Your task to perform on an android device: change notifications settings Image 0: 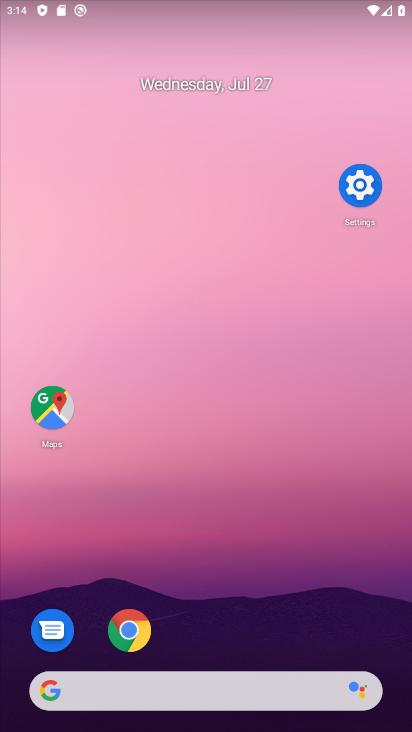
Step 0: press home button
Your task to perform on an android device: change notifications settings Image 1: 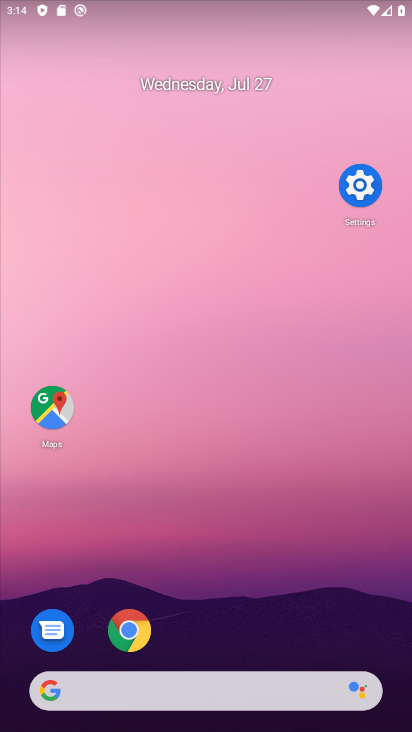
Step 1: drag from (229, 573) to (245, 94)
Your task to perform on an android device: change notifications settings Image 2: 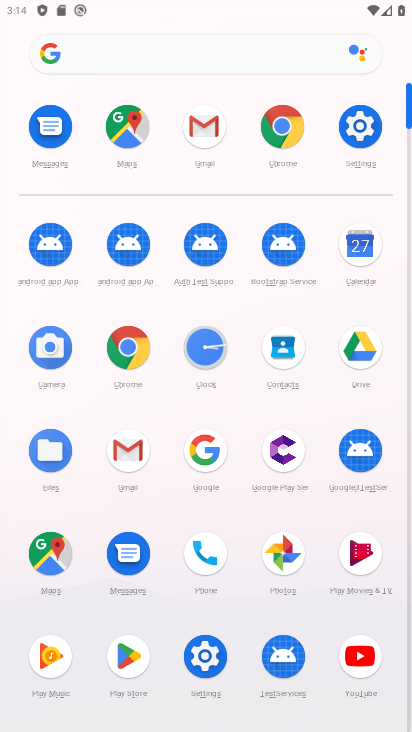
Step 2: click (356, 133)
Your task to perform on an android device: change notifications settings Image 3: 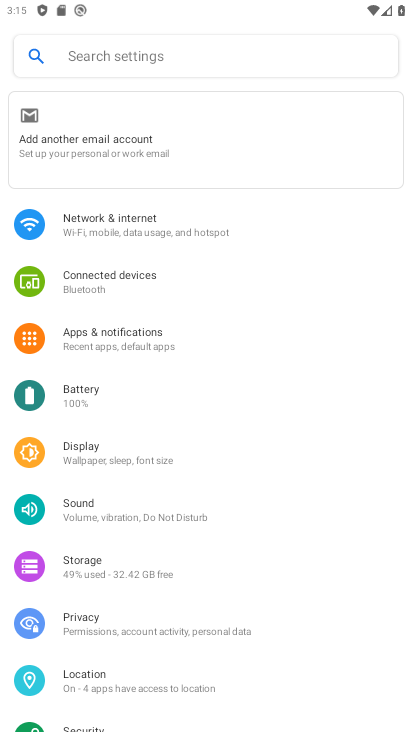
Step 3: click (133, 342)
Your task to perform on an android device: change notifications settings Image 4: 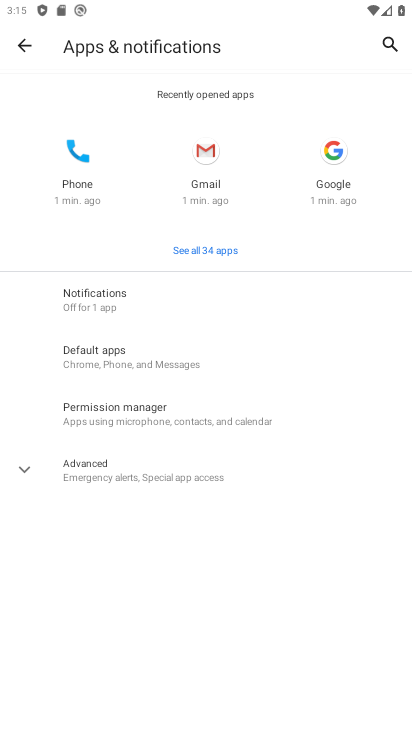
Step 4: click (75, 295)
Your task to perform on an android device: change notifications settings Image 5: 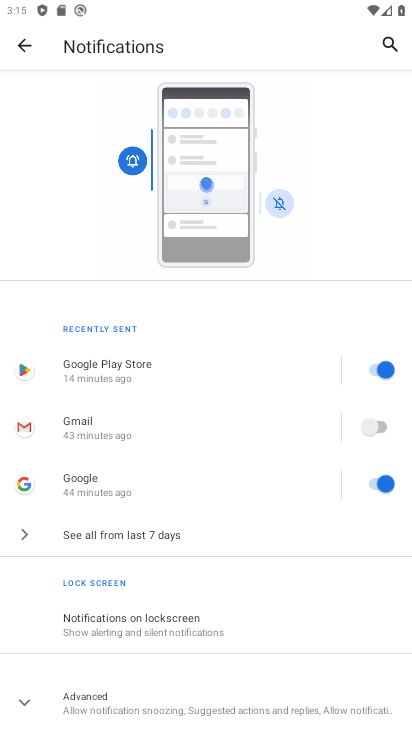
Step 5: click (129, 145)
Your task to perform on an android device: change notifications settings Image 6: 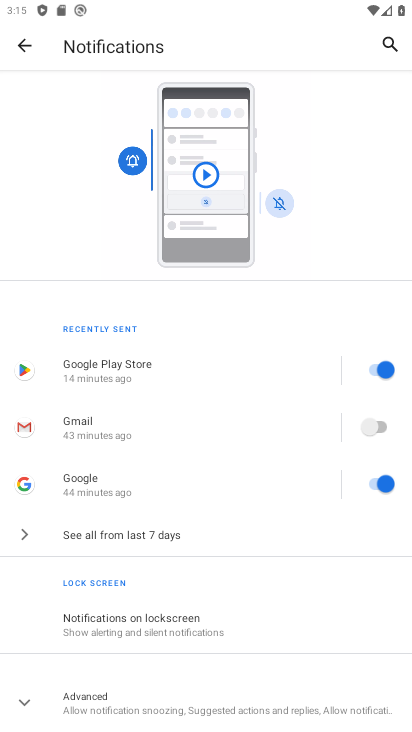
Step 6: task complete